Your task to perform on an android device: change the upload size in google photos Image 0: 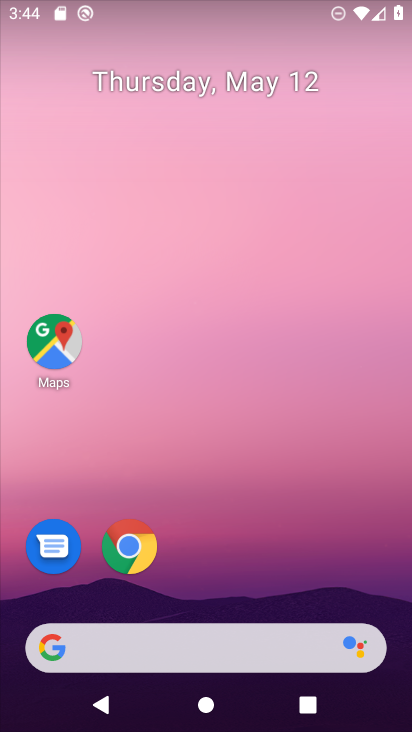
Step 0: drag from (266, 484) to (265, 256)
Your task to perform on an android device: change the upload size in google photos Image 1: 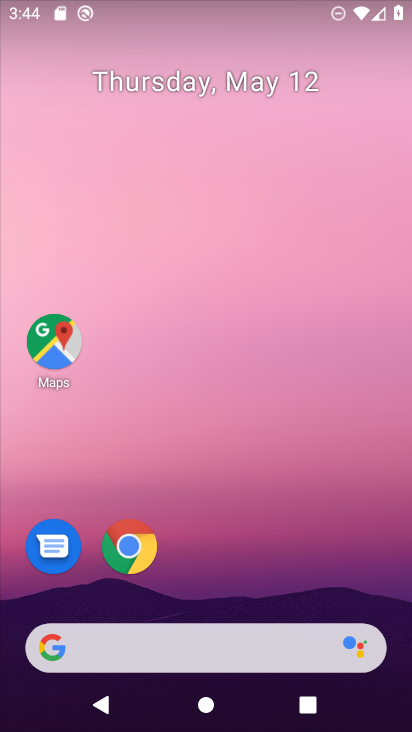
Step 1: drag from (232, 480) to (275, 204)
Your task to perform on an android device: change the upload size in google photos Image 2: 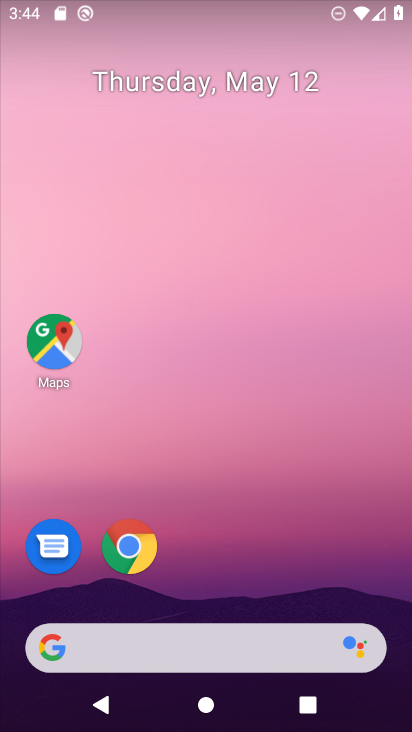
Step 2: drag from (222, 514) to (251, 272)
Your task to perform on an android device: change the upload size in google photos Image 3: 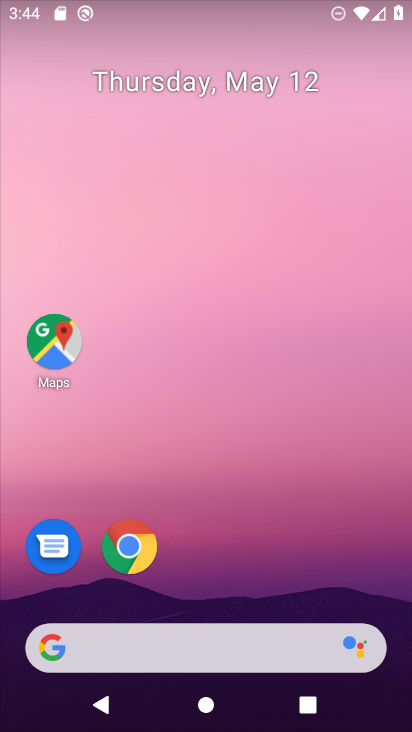
Step 3: click (250, 175)
Your task to perform on an android device: change the upload size in google photos Image 4: 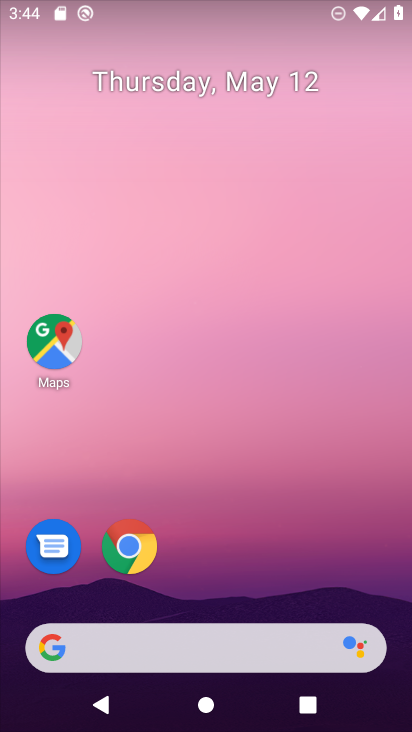
Step 4: drag from (241, 569) to (307, 214)
Your task to perform on an android device: change the upload size in google photos Image 5: 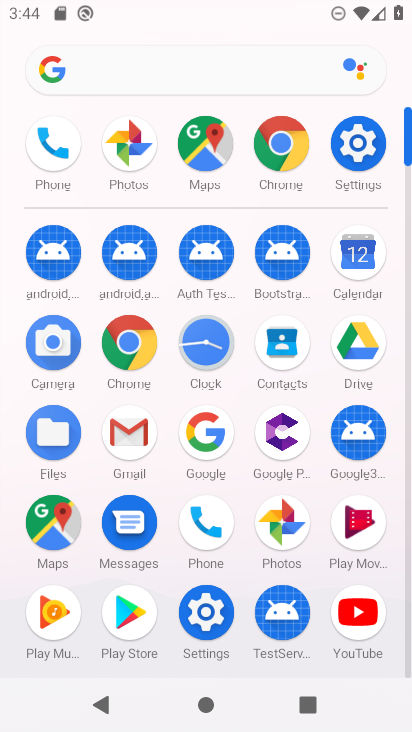
Step 5: click (271, 516)
Your task to perform on an android device: change the upload size in google photos Image 6: 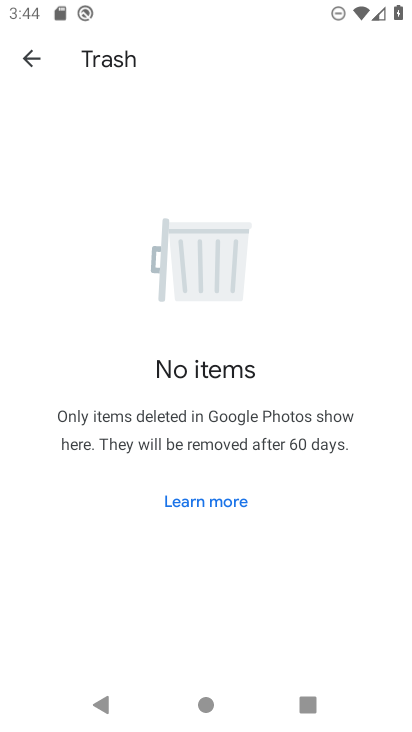
Step 6: click (29, 63)
Your task to perform on an android device: change the upload size in google photos Image 7: 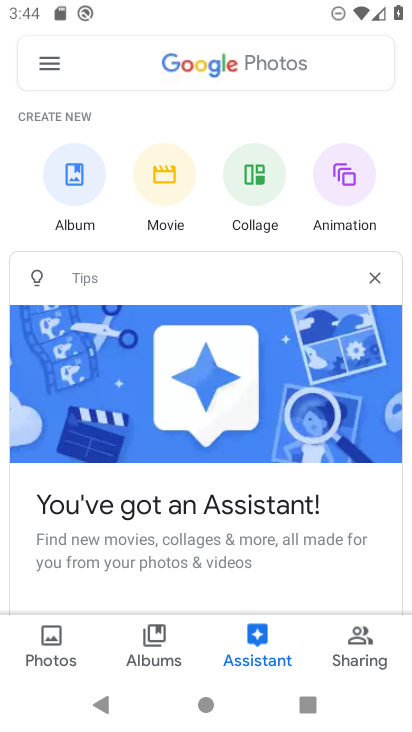
Step 7: click (54, 53)
Your task to perform on an android device: change the upload size in google photos Image 8: 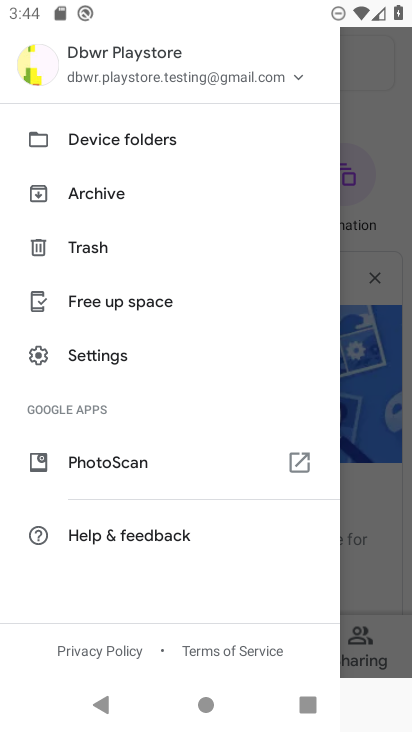
Step 8: click (112, 360)
Your task to perform on an android device: change the upload size in google photos Image 9: 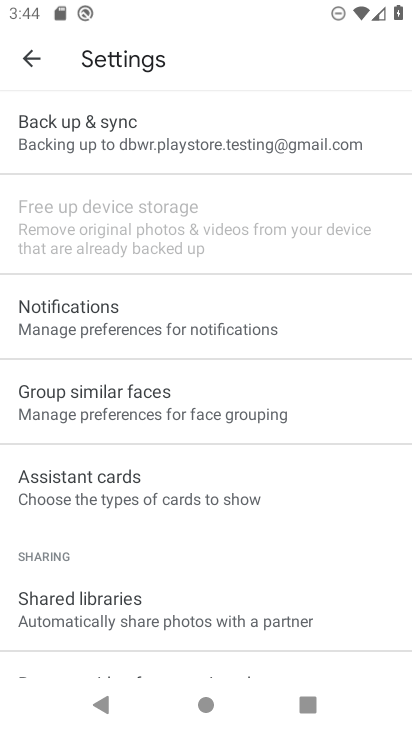
Step 9: click (108, 131)
Your task to perform on an android device: change the upload size in google photos Image 10: 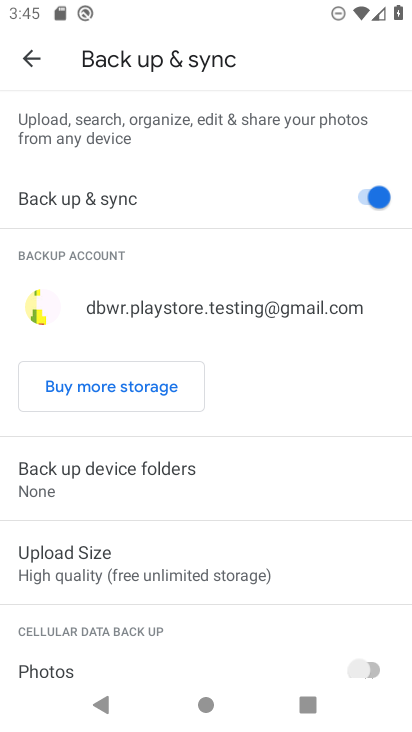
Step 10: click (167, 554)
Your task to perform on an android device: change the upload size in google photos Image 11: 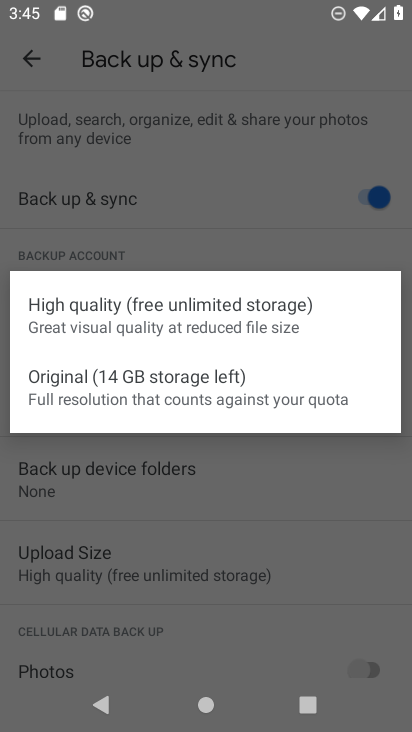
Step 11: click (165, 391)
Your task to perform on an android device: change the upload size in google photos Image 12: 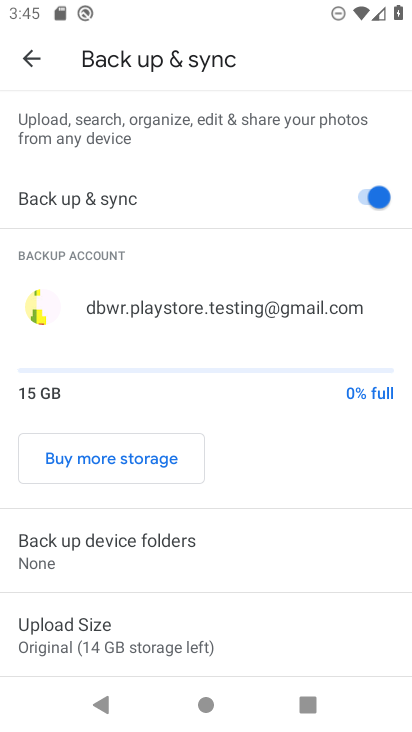
Step 12: task complete